Your task to perform on an android device: Open Amazon Image 0: 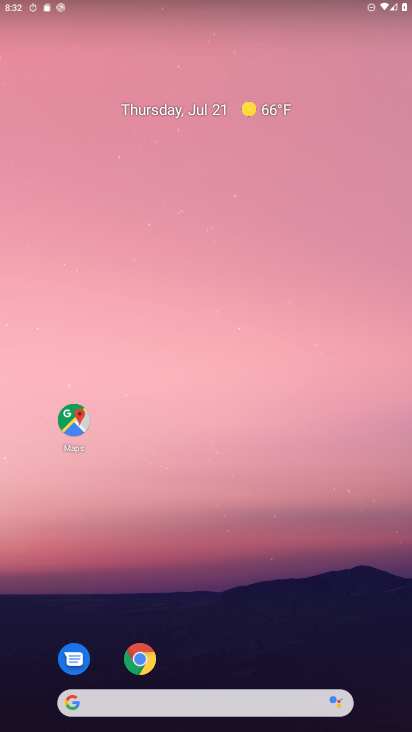
Step 0: drag from (171, 674) to (235, 234)
Your task to perform on an android device: Open Amazon Image 1: 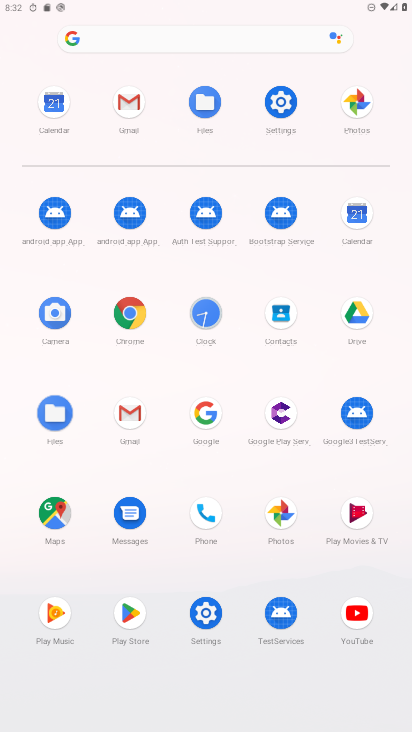
Step 1: click (129, 313)
Your task to perform on an android device: Open Amazon Image 2: 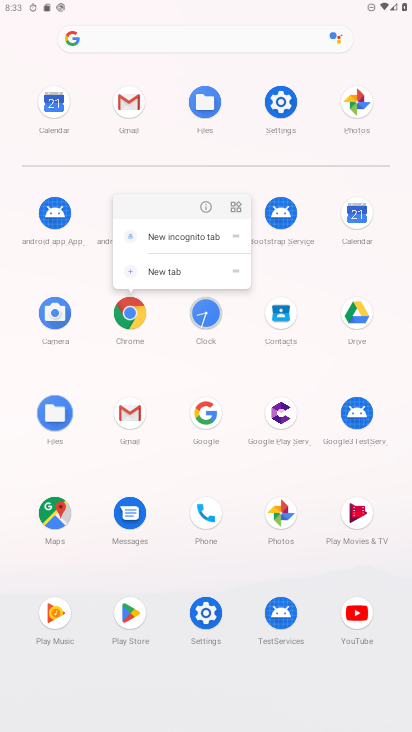
Step 2: click (201, 202)
Your task to perform on an android device: Open Amazon Image 3: 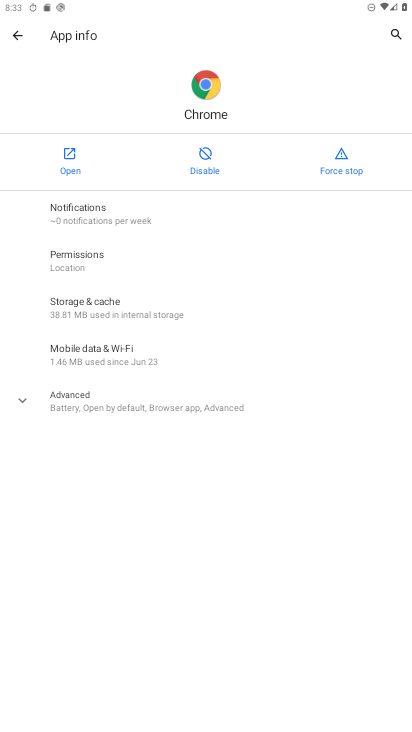
Step 3: click (67, 165)
Your task to perform on an android device: Open Amazon Image 4: 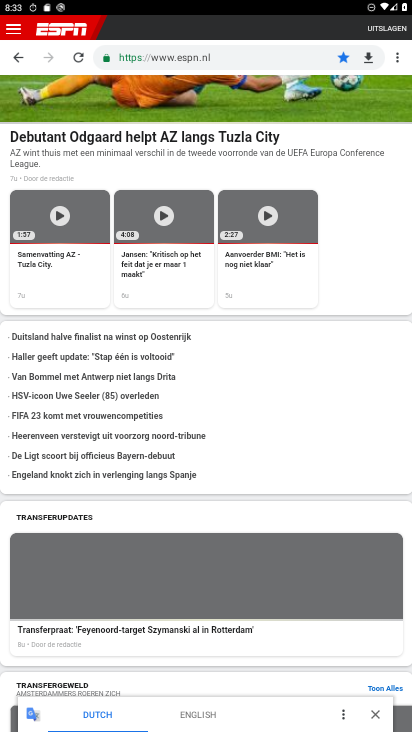
Step 4: drag from (203, 108) to (301, 729)
Your task to perform on an android device: Open Amazon Image 5: 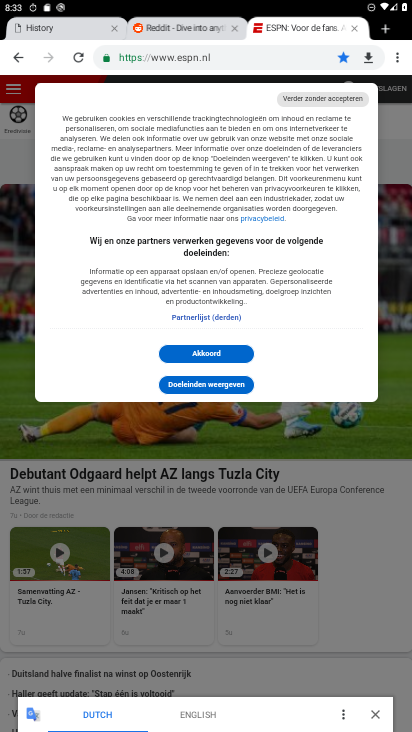
Step 5: drag from (259, 215) to (363, 678)
Your task to perform on an android device: Open Amazon Image 6: 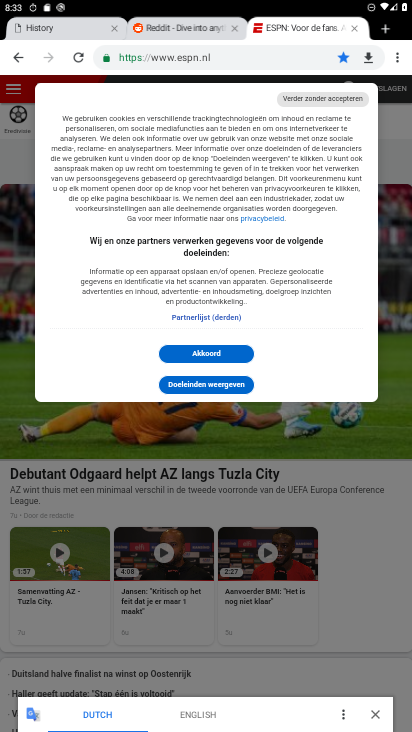
Step 6: click (354, 30)
Your task to perform on an android device: Open Amazon Image 7: 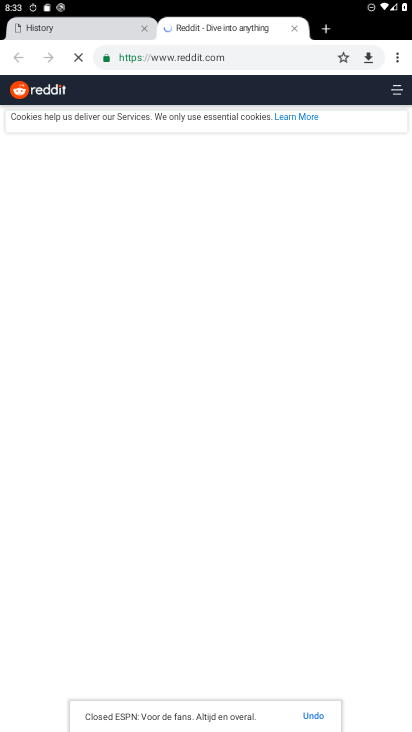
Step 7: click (298, 25)
Your task to perform on an android device: Open Amazon Image 8: 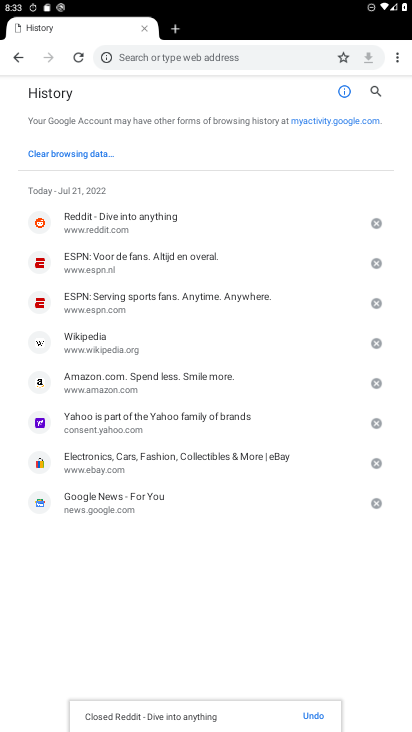
Step 8: click (177, 26)
Your task to perform on an android device: Open Amazon Image 9: 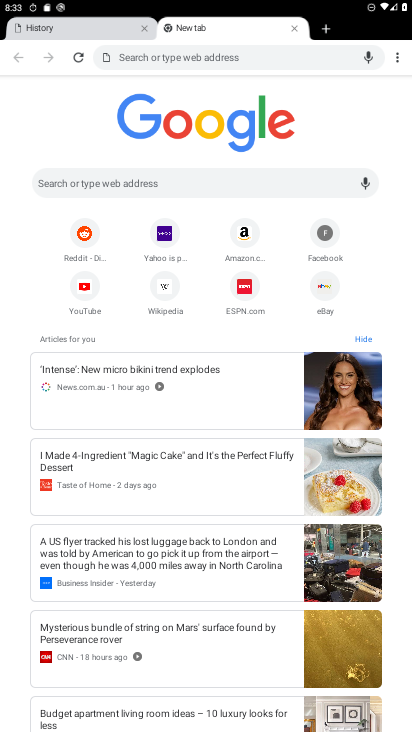
Step 9: click (247, 228)
Your task to perform on an android device: Open Amazon Image 10: 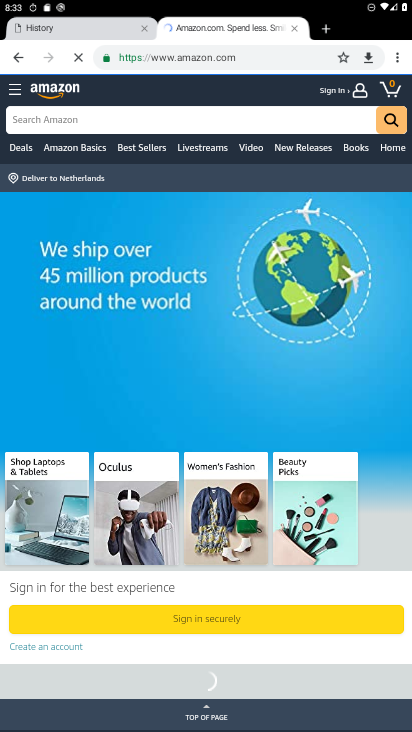
Step 10: task complete